Your task to perform on an android device: change the clock display to show seconds Image 0: 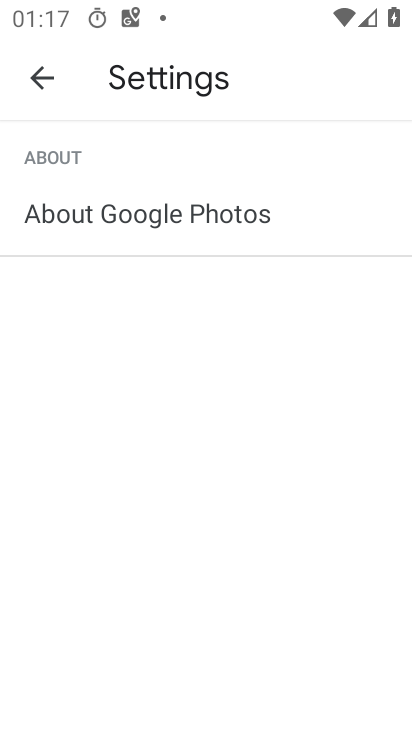
Step 0: press home button
Your task to perform on an android device: change the clock display to show seconds Image 1: 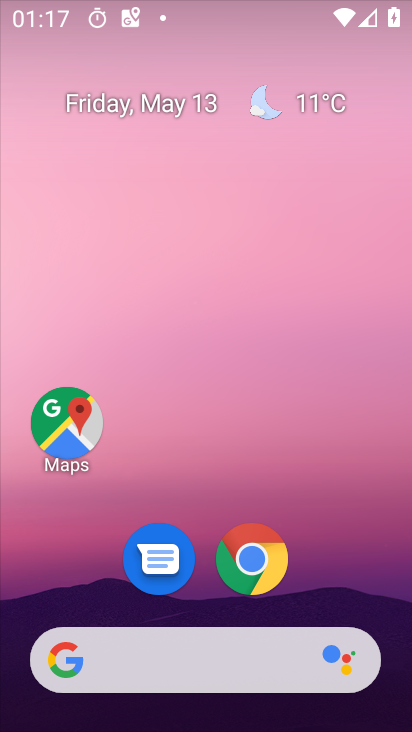
Step 1: drag from (376, 579) to (326, 126)
Your task to perform on an android device: change the clock display to show seconds Image 2: 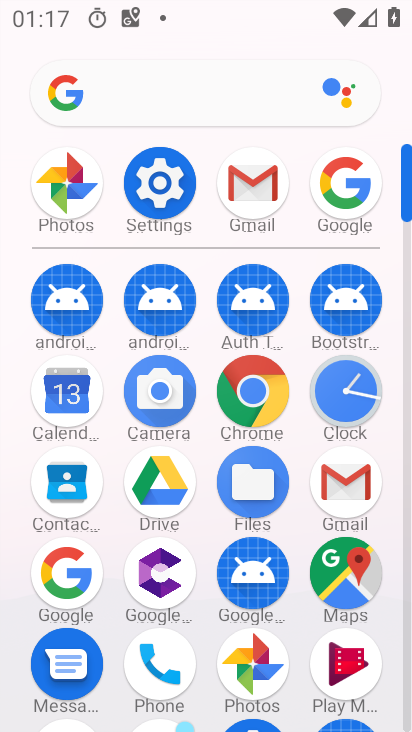
Step 2: click (353, 395)
Your task to perform on an android device: change the clock display to show seconds Image 3: 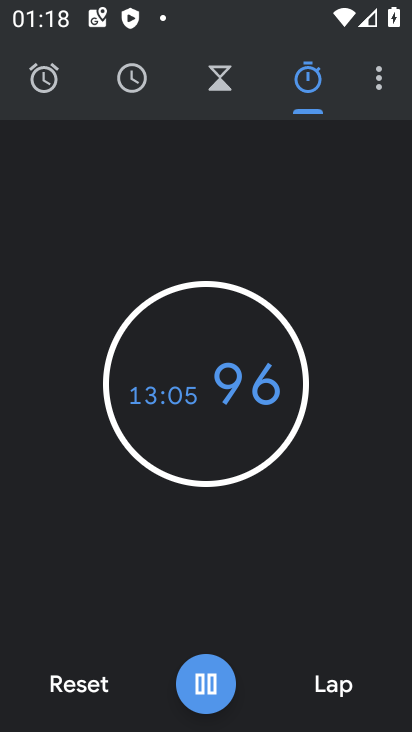
Step 3: click (375, 80)
Your task to perform on an android device: change the clock display to show seconds Image 4: 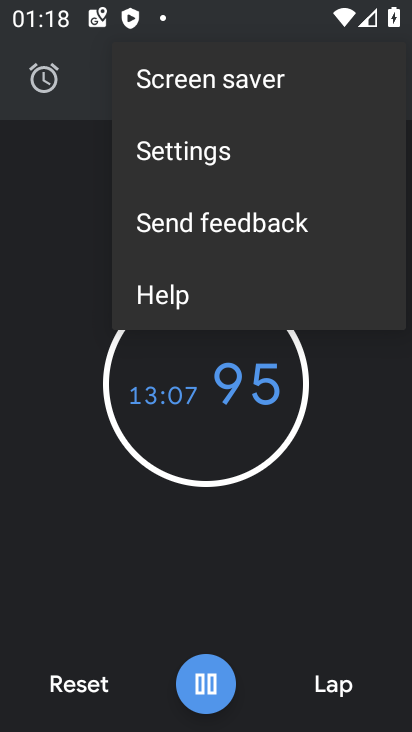
Step 4: click (199, 157)
Your task to perform on an android device: change the clock display to show seconds Image 5: 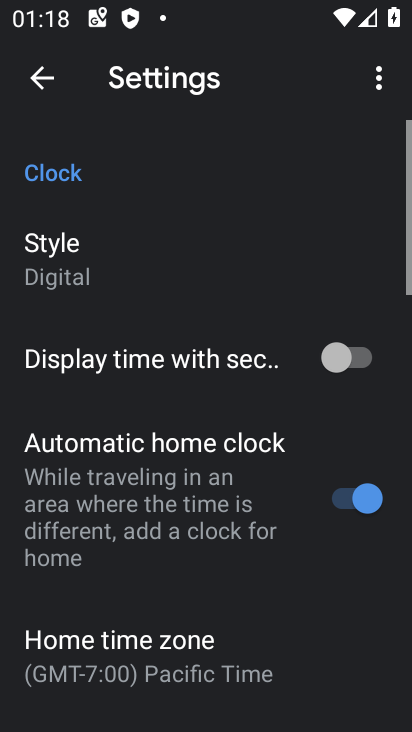
Step 5: click (347, 348)
Your task to perform on an android device: change the clock display to show seconds Image 6: 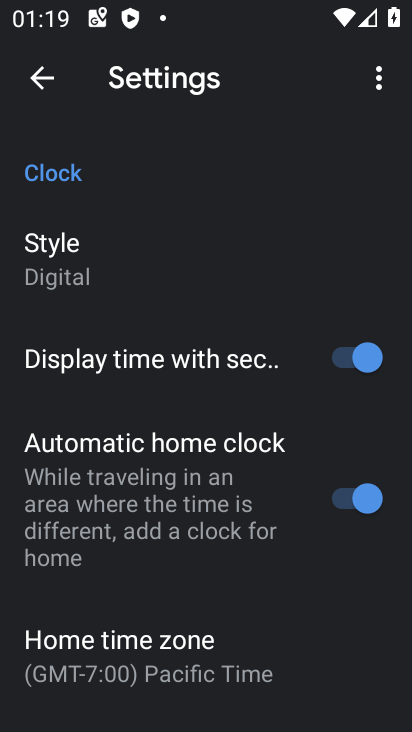
Step 6: task complete